Your task to perform on an android device: Go to eBay Image 0: 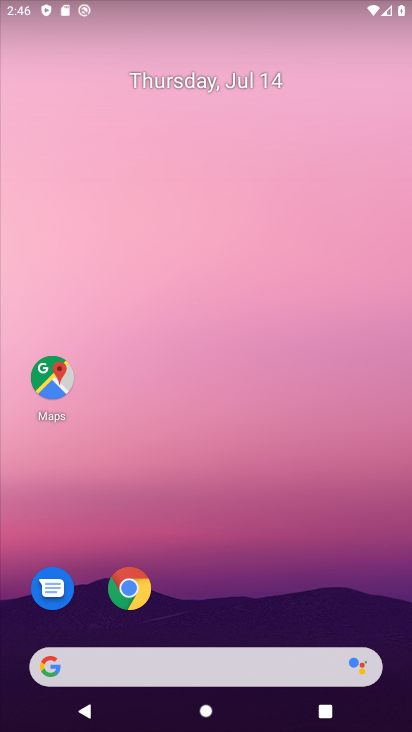
Step 0: click (131, 588)
Your task to perform on an android device: Go to eBay Image 1: 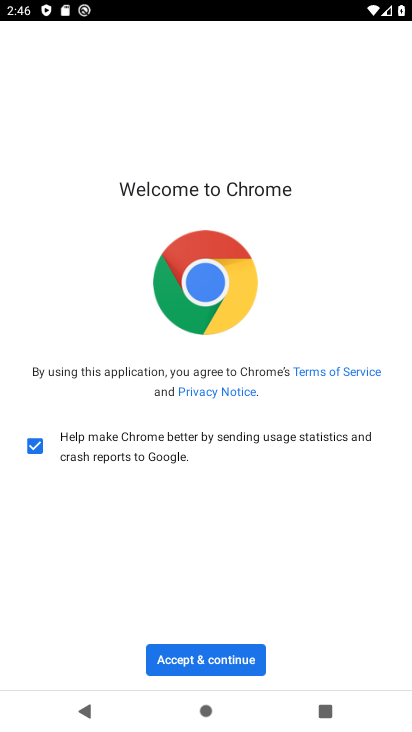
Step 1: click (205, 648)
Your task to perform on an android device: Go to eBay Image 2: 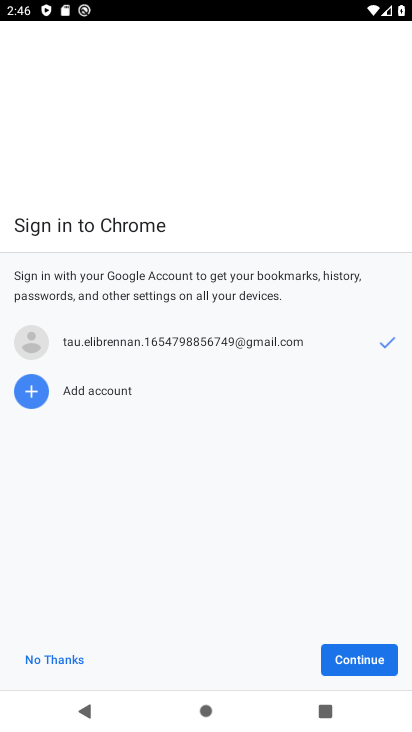
Step 2: click (352, 656)
Your task to perform on an android device: Go to eBay Image 3: 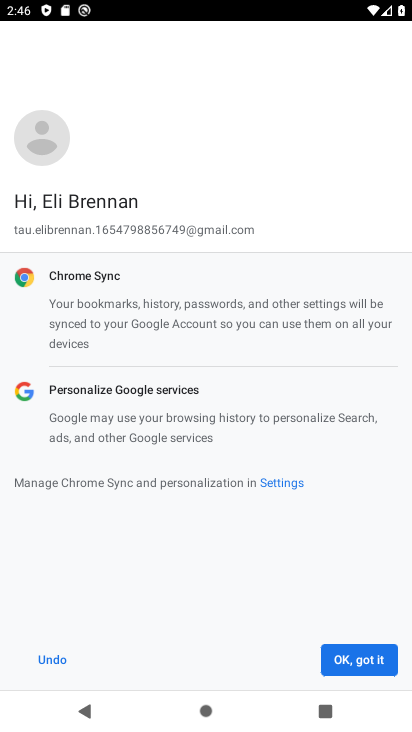
Step 3: click (352, 656)
Your task to perform on an android device: Go to eBay Image 4: 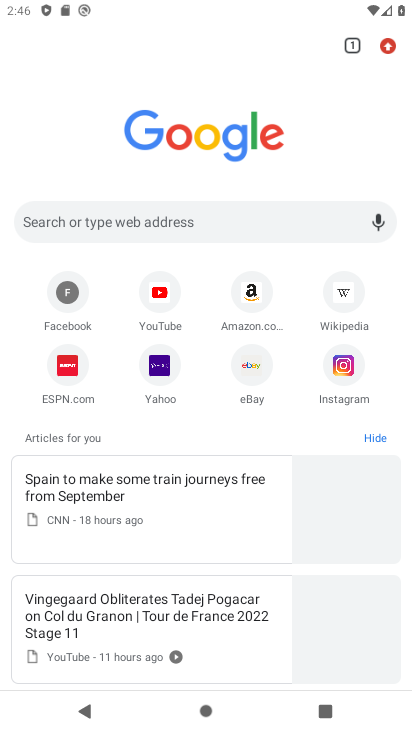
Step 4: click (259, 369)
Your task to perform on an android device: Go to eBay Image 5: 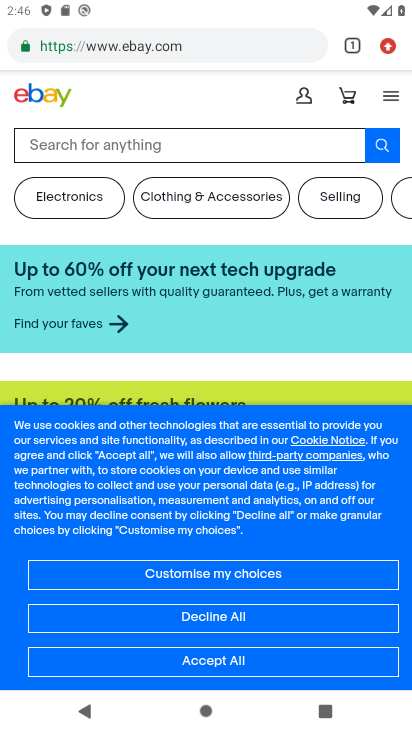
Step 5: task complete